Your task to perform on an android device: Open CNN.com Image 0: 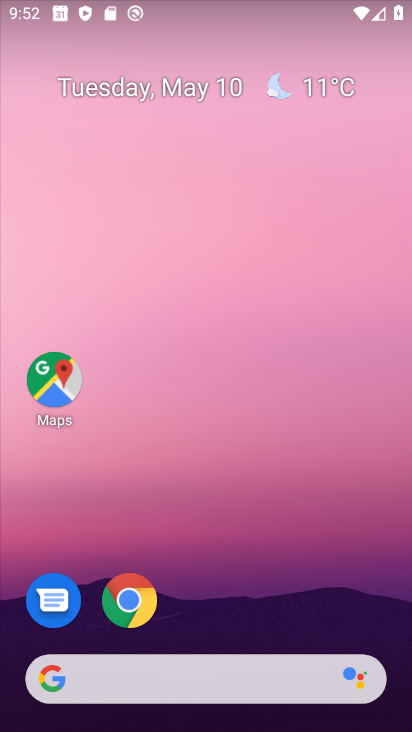
Step 0: drag from (286, 562) to (237, 38)
Your task to perform on an android device: Open CNN.com Image 1: 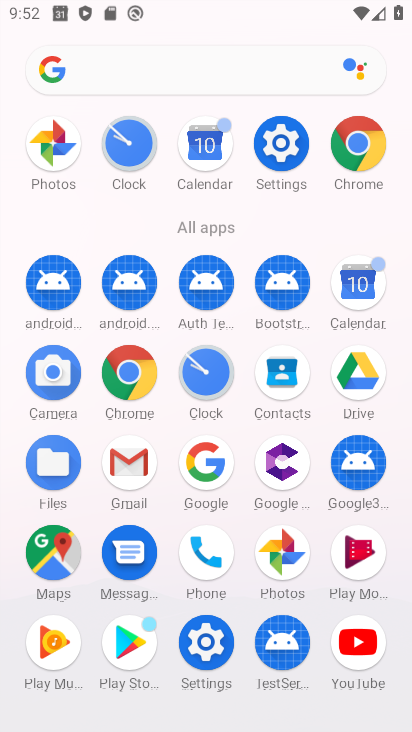
Step 1: click (365, 163)
Your task to perform on an android device: Open CNN.com Image 2: 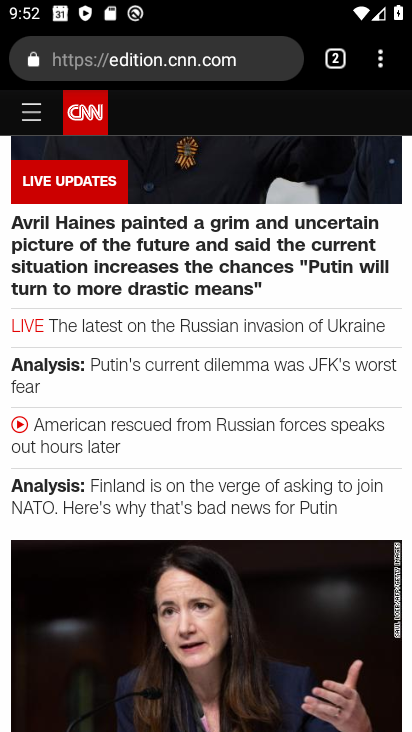
Step 2: task complete